Your task to perform on an android device: open chrome and create a bookmark for the current page Image 0: 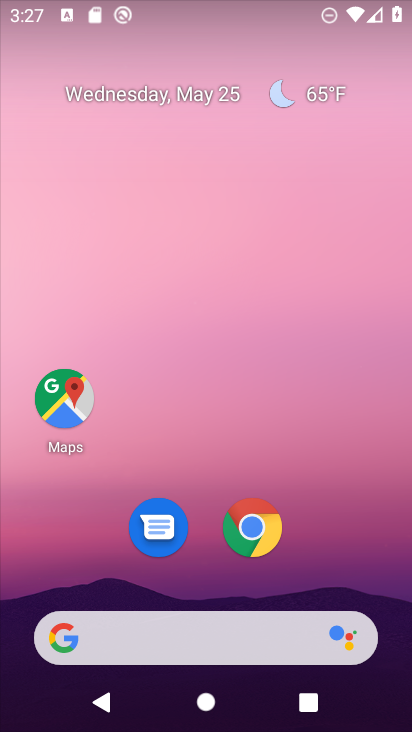
Step 0: drag from (285, 613) to (298, 6)
Your task to perform on an android device: open chrome and create a bookmark for the current page Image 1: 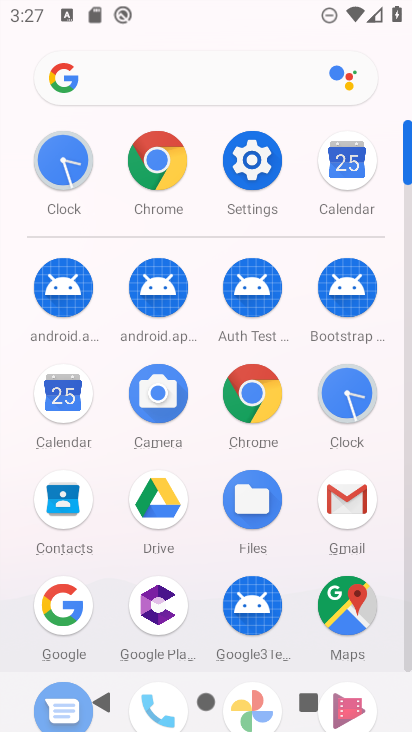
Step 1: click (264, 408)
Your task to perform on an android device: open chrome and create a bookmark for the current page Image 2: 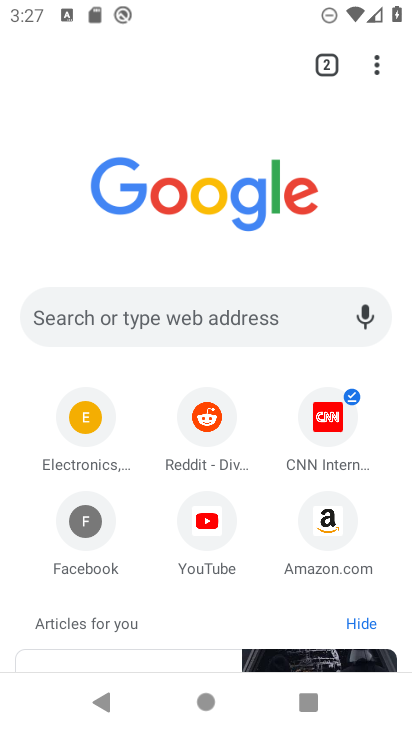
Step 2: task complete